Your task to perform on an android device: turn vacation reply on in the gmail app Image 0: 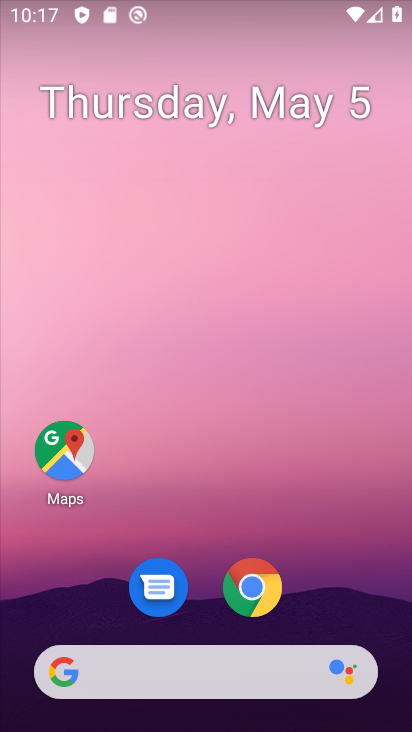
Step 0: drag from (323, 529) to (289, 9)
Your task to perform on an android device: turn vacation reply on in the gmail app Image 1: 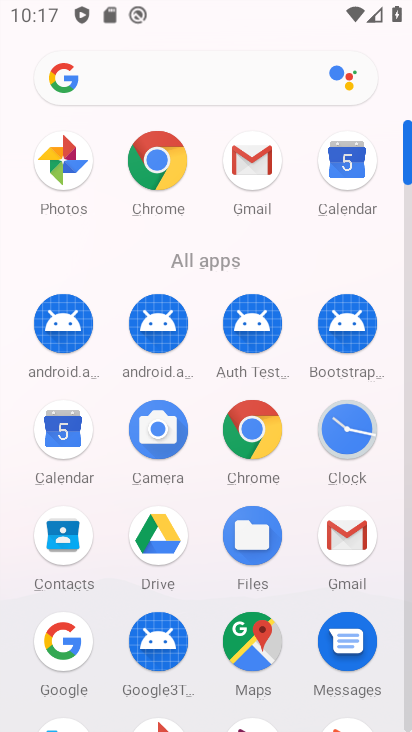
Step 1: drag from (10, 560) to (3, 241)
Your task to perform on an android device: turn vacation reply on in the gmail app Image 2: 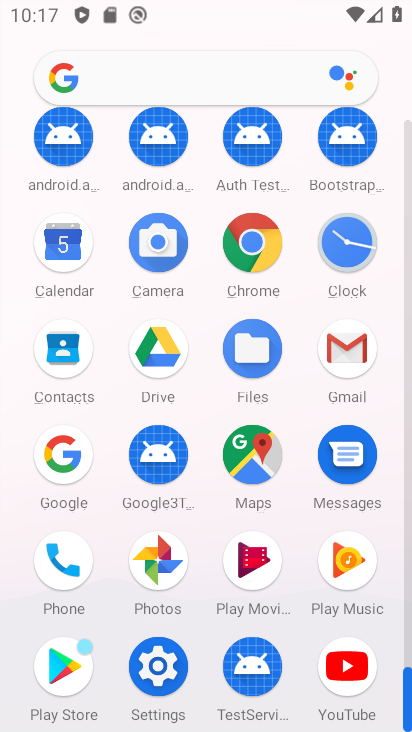
Step 2: click (346, 344)
Your task to perform on an android device: turn vacation reply on in the gmail app Image 3: 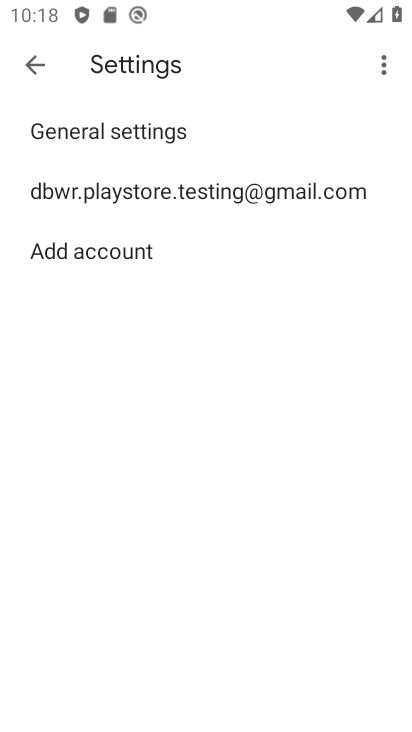
Step 3: click (132, 195)
Your task to perform on an android device: turn vacation reply on in the gmail app Image 4: 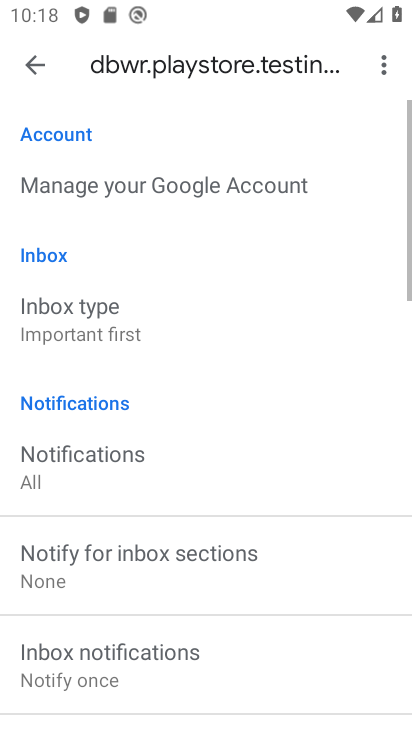
Step 4: drag from (222, 543) to (268, 141)
Your task to perform on an android device: turn vacation reply on in the gmail app Image 5: 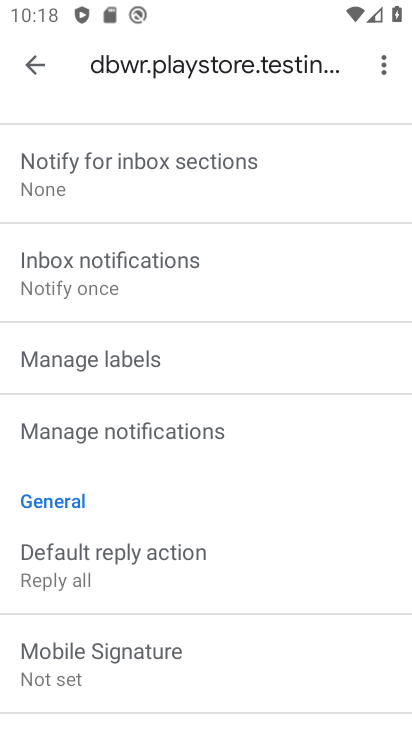
Step 5: drag from (254, 554) to (266, 165)
Your task to perform on an android device: turn vacation reply on in the gmail app Image 6: 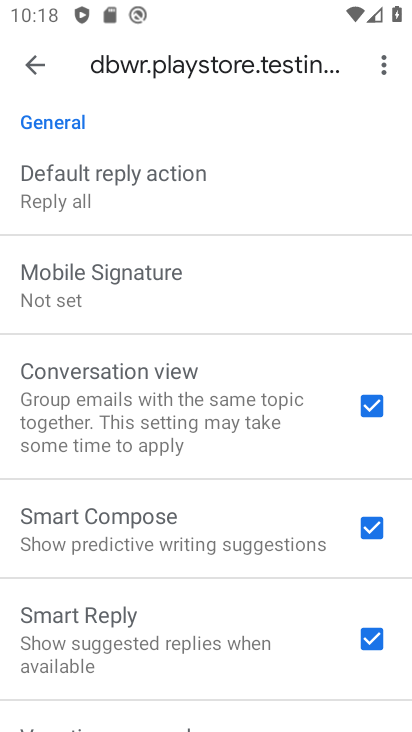
Step 6: drag from (243, 555) to (243, 155)
Your task to perform on an android device: turn vacation reply on in the gmail app Image 7: 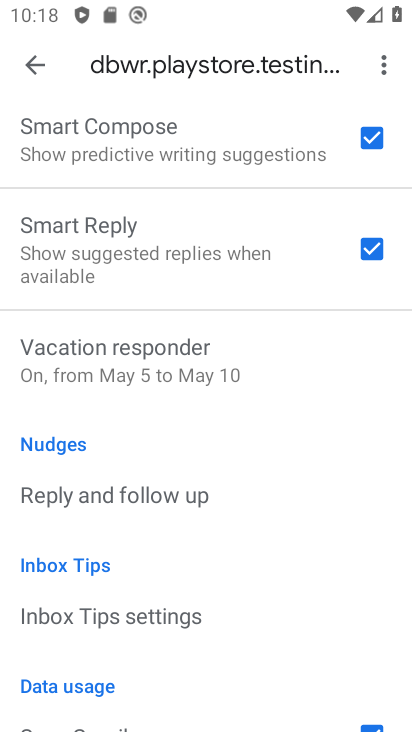
Step 7: click (168, 369)
Your task to perform on an android device: turn vacation reply on in the gmail app Image 8: 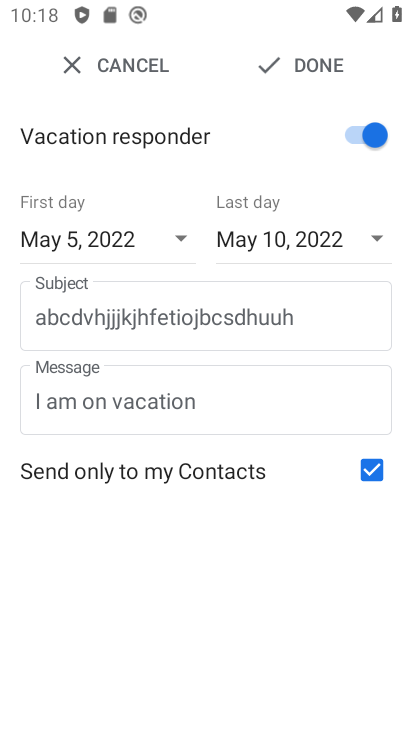
Step 8: click (297, 45)
Your task to perform on an android device: turn vacation reply on in the gmail app Image 9: 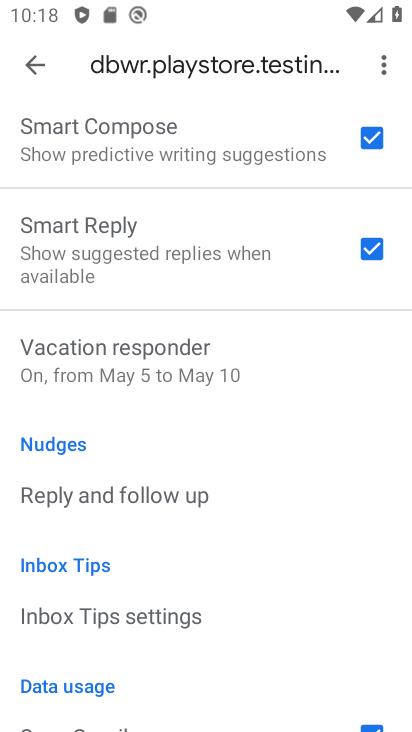
Step 9: task complete